Your task to perform on an android device: choose inbox layout in the gmail app Image 0: 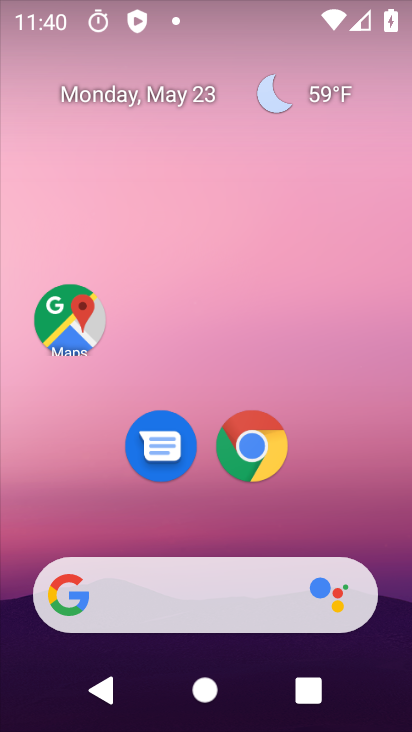
Step 0: drag from (238, 562) to (327, 62)
Your task to perform on an android device: choose inbox layout in the gmail app Image 1: 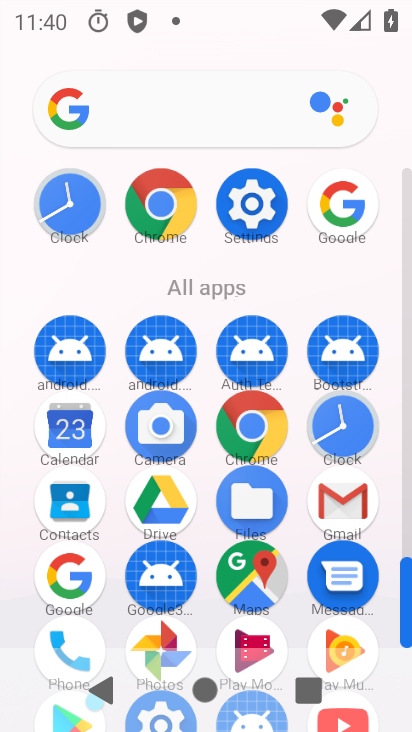
Step 1: click (256, 219)
Your task to perform on an android device: choose inbox layout in the gmail app Image 2: 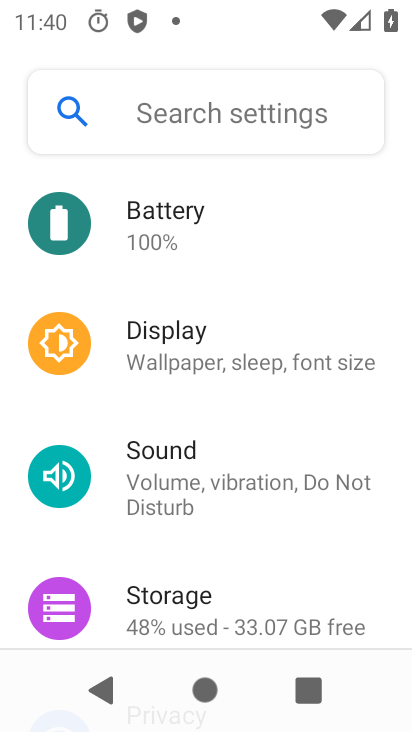
Step 2: press home button
Your task to perform on an android device: choose inbox layout in the gmail app Image 3: 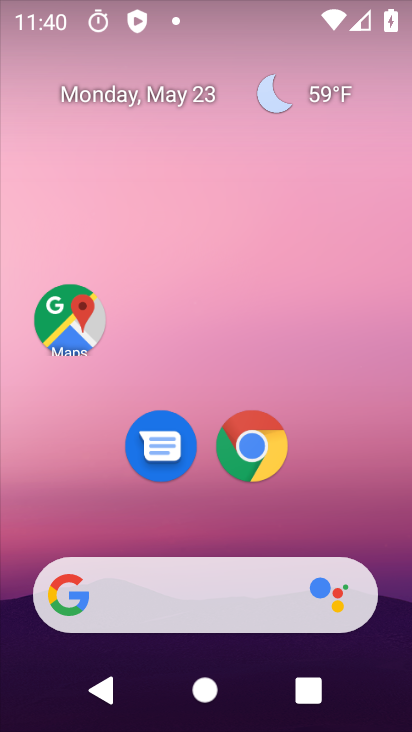
Step 3: drag from (215, 564) to (268, 145)
Your task to perform on an android device: choose inbox layout in the gmail app Image 4: 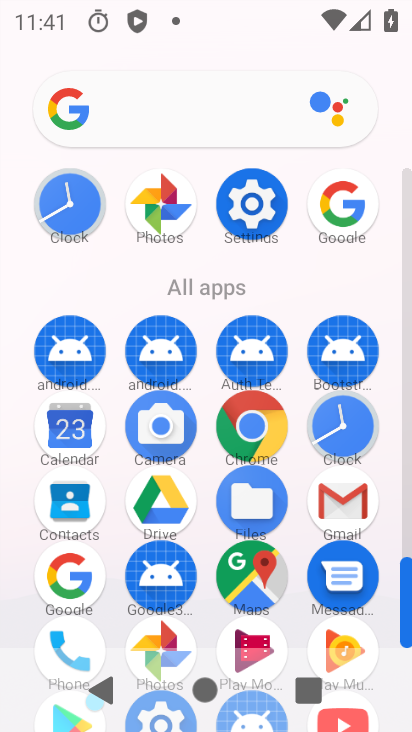
Step 4: click (343, 508)
Your task to perform on an android device: choose inbox layout in the gmail app Image 5: 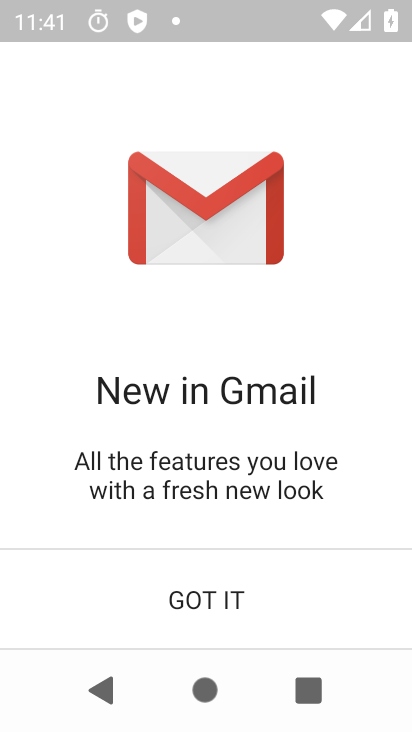
Step 5: click (223, 598)
Your task to perform on an android device: choose inbox layout in the gmail app Image 6: 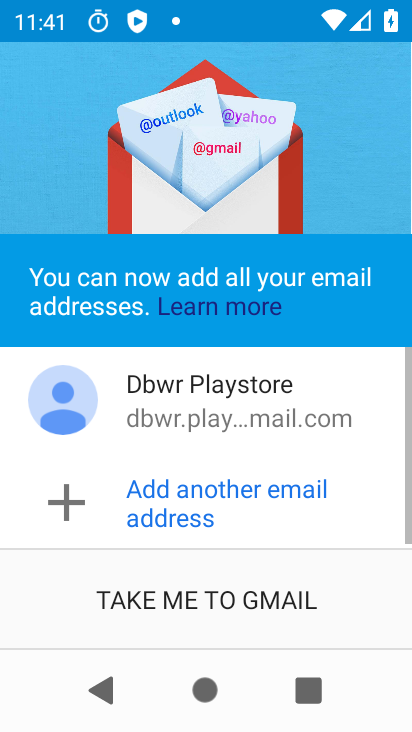
Step 6: click (223, 598)
Your task to perform on an android device: choose inbox layout in the gmail app Image 7: 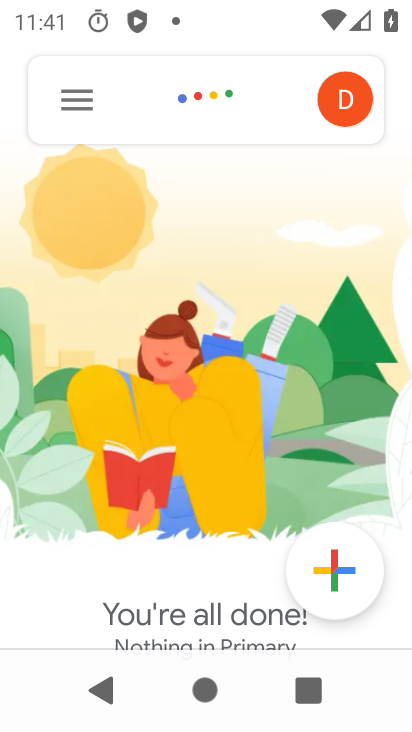
Step 7: click (79, 104)
Your task to perform on an android device: choose inbox layout in the gmail app Image 8: 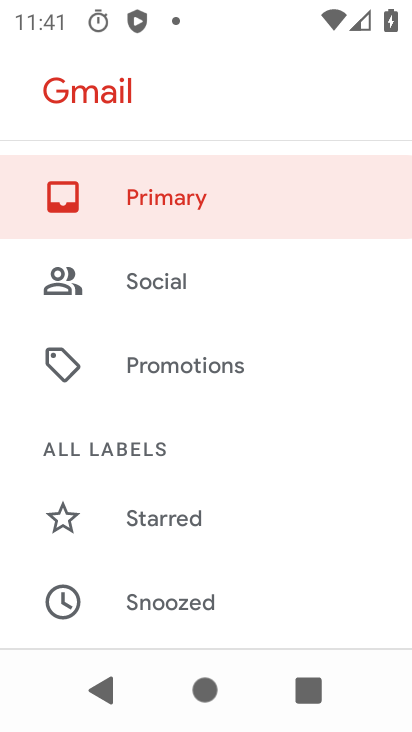
Step 8: drag from (169, 516) to (208, 207)
Your task to perform on an android device: choose inbox layout in the gmail app Image 9: 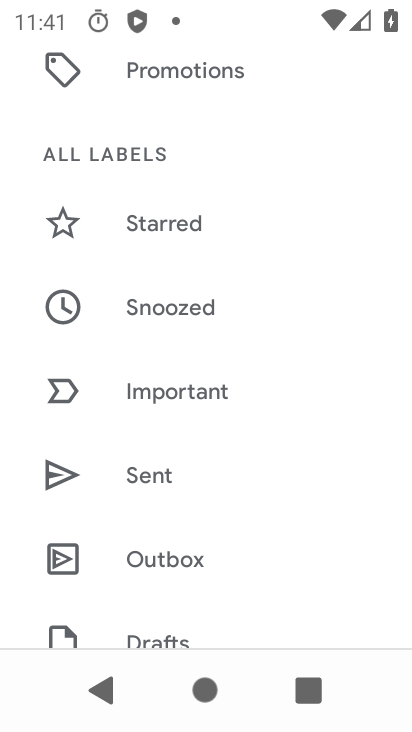
Step 9: drag from (179, 588) to (214, 306)
Your task to perform on an android device: choose inbox layout in the gmail app Image 10: 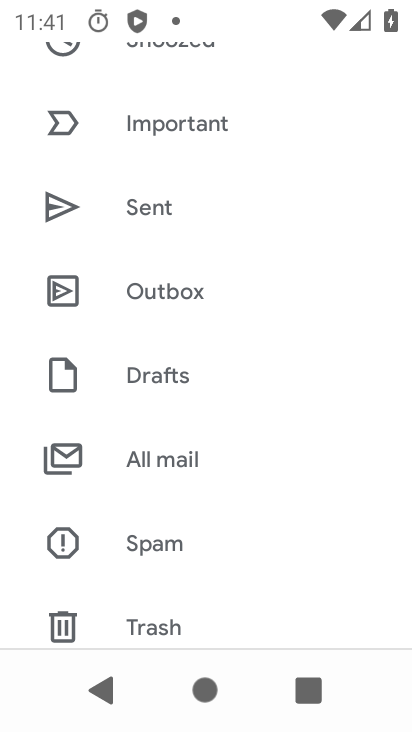
Step 10: drag from (161, 630) to (218, 304)
Your task to perform on an android device: choose inbox layout in the gmail app Image 11: 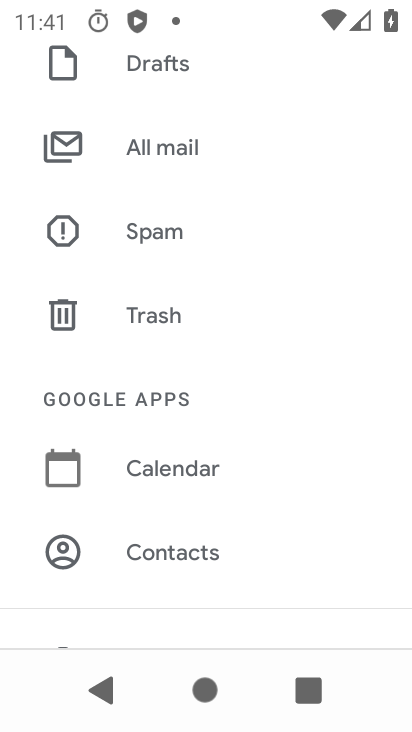
Step 11: drag from (151, 609) to (244, 122)
Your task to perform on an android device: choose inbox layout in the gmail app Image 12: 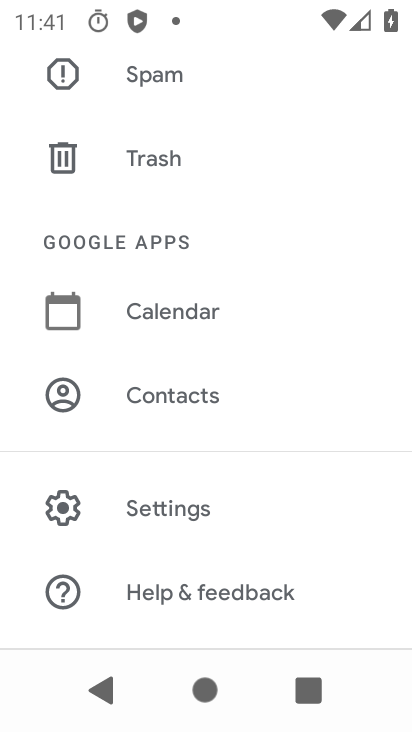
Step 12: click (167, 516)
Your task to perform on an android device: choose inbox layout in the gmail app Image 13: 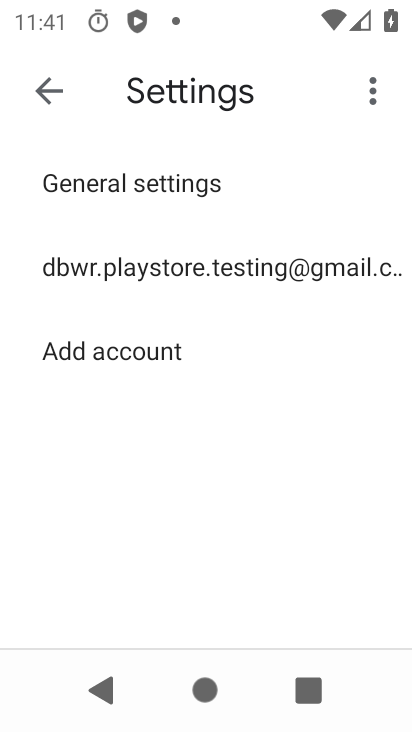
Step 13: click (242, 272)
Your task to perform on an android device: choose inbox layout in the gmail app Image 14: 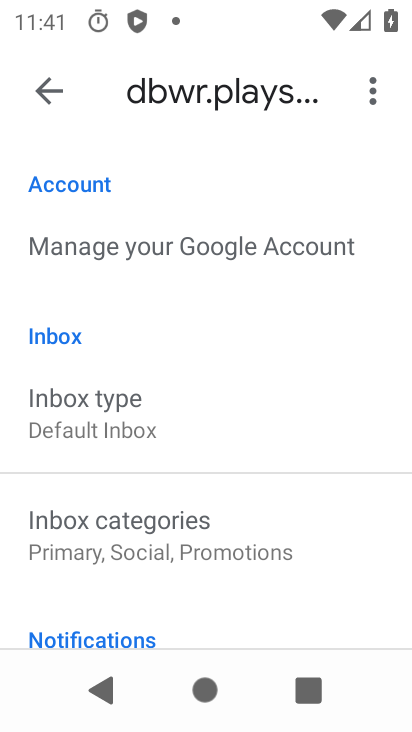
Step 14: click (115, 421)
Your task to perform on an android device: choose inbox layout in the gmail app Image 15: 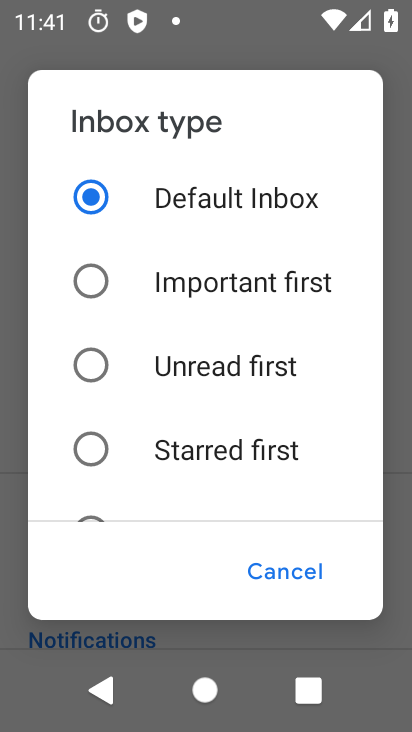
Step 15: drag from (176, 418) to (313, 58)
Your task to perform on an android device: choose inbox layout in the gmail app Image 16: 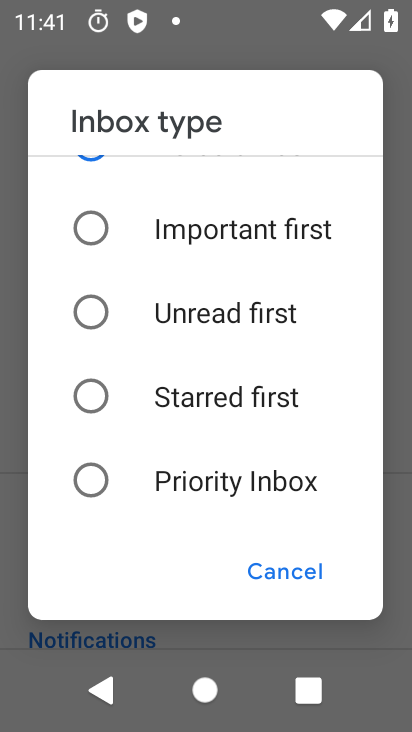
Step 16: click (210, 471)
Your task to perform on an android device: choose inbox layout in the gmail app Image 17: 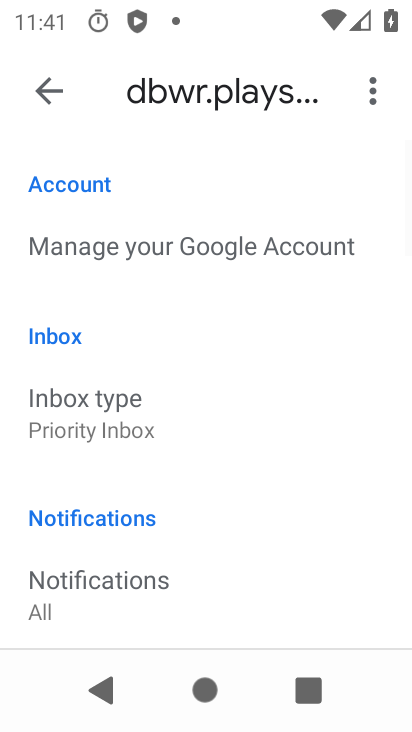
Step 17: task complete